Your task to perform on an android device: uninstall "Flipkart Online Shopping App" Image 0: 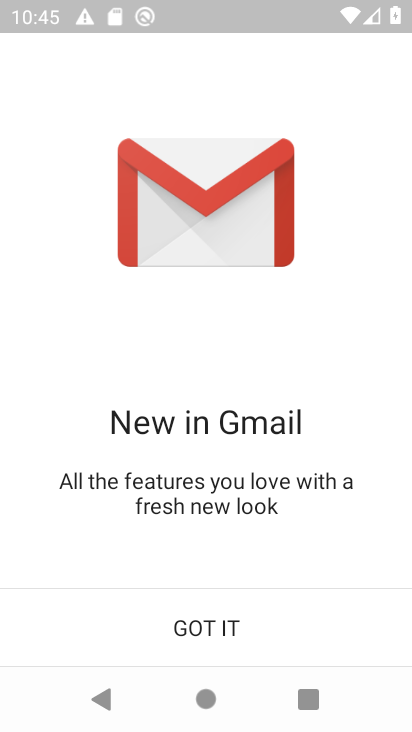
Step 0: press home button
Your task to perform on an android device: uninstall "Flipkart Online Shopping App" Image 1: 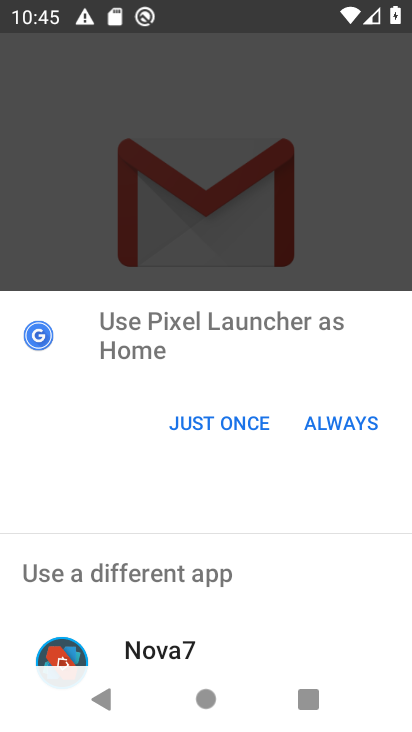
Step 1: click (202, 417)
Your task to perform on an android device: uninstall "Flipkart Online Shopping App" Image 2: 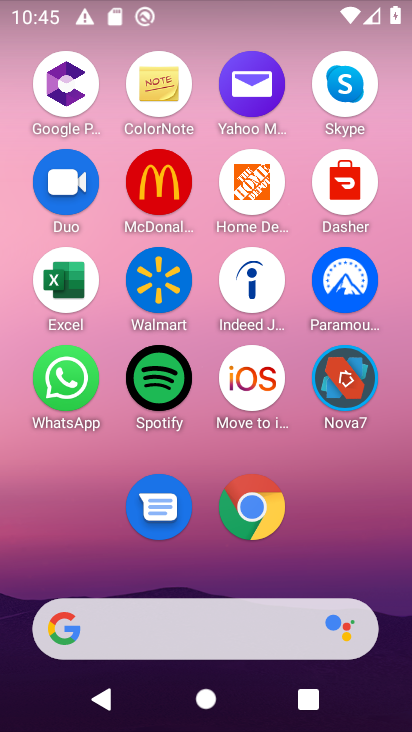
Step 2: drag from (405, 647) to (387, 231)
Your task to perform on an android device: uninstall "Flipkart Online Shopping App" Image 3: 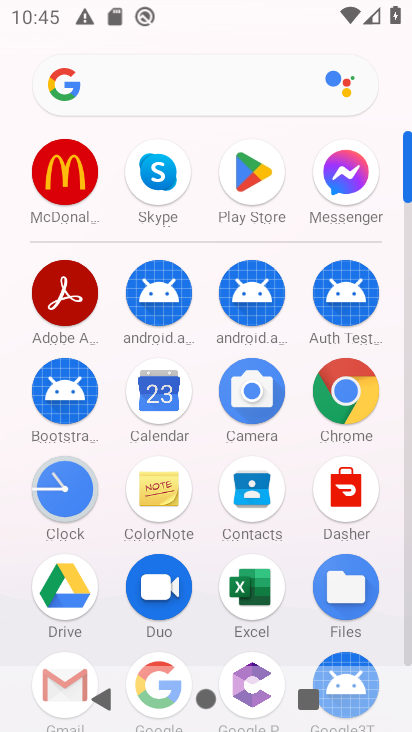
Step 3: click (407, 646)
Your task to perform on an android device: uninstall "Flipkart Online Shopping App" Image 4: 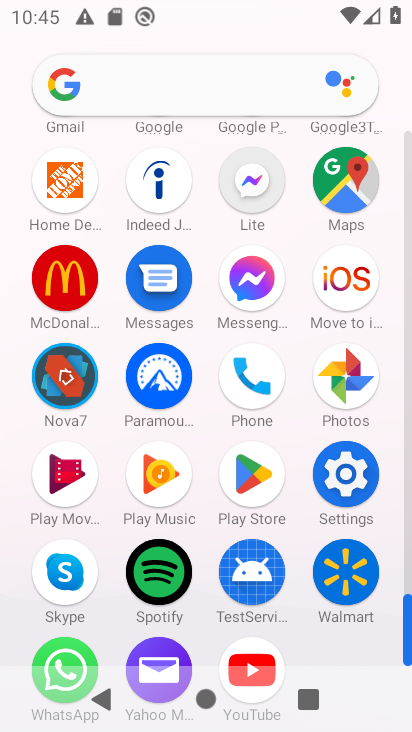
Step 4: click (256, 472)
Your task to perform on an android device: uninstall "Flipkart Online Shopping App" Image 5: 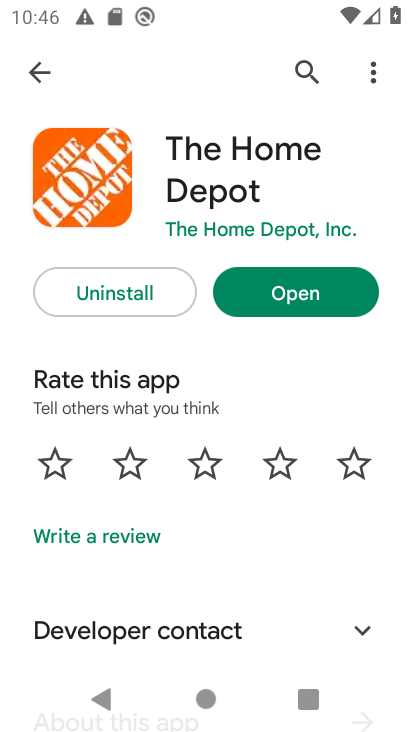
Step 5: click (302, 65)
Your task to perform on an android device: uninstall "Flipkart Online Shopping App" Image 6: 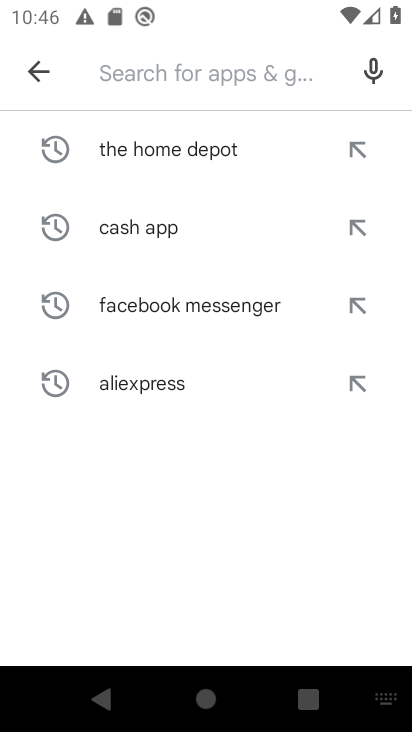
Step 6: type "Flipkart Online Shopping App"
Your task to perform on an android device: uninstall "Flipkart Online Shopping App" Image 7: 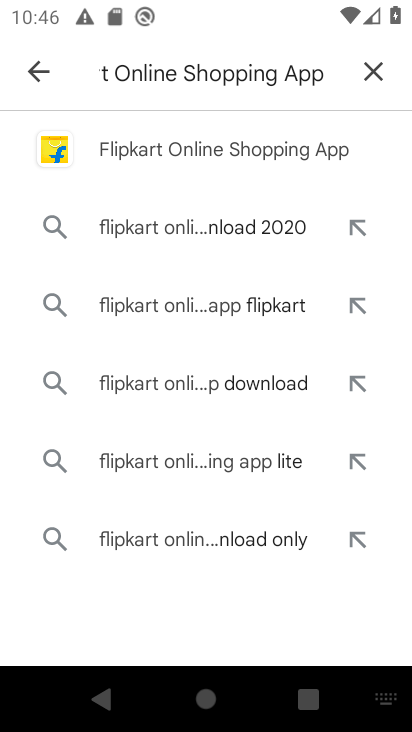
Step 7: click (159, 134)
Your task to perform on an android device: uninstall "Flipkart Online Shopping App" Image 8: 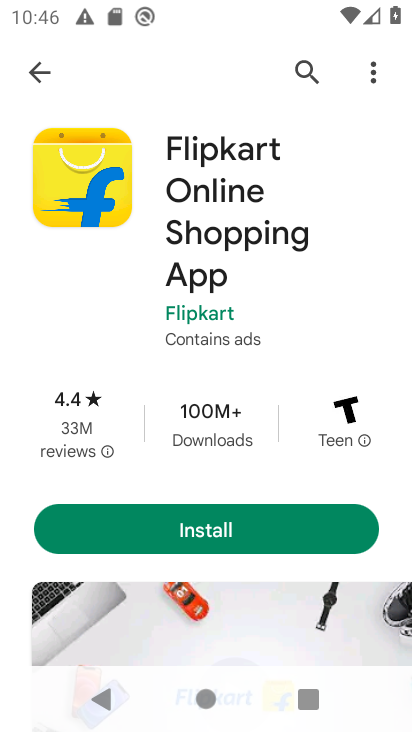
Step 8: task complete